Your task to perform on an android device: change text size in settings app Image 0: 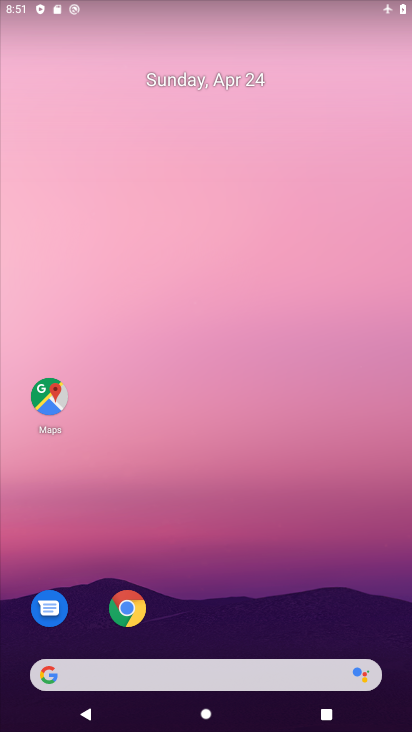
Step 0: drag from (205, 628) to (232, 127)
Your task to perform on an android device: change text size in settings app Image 1: 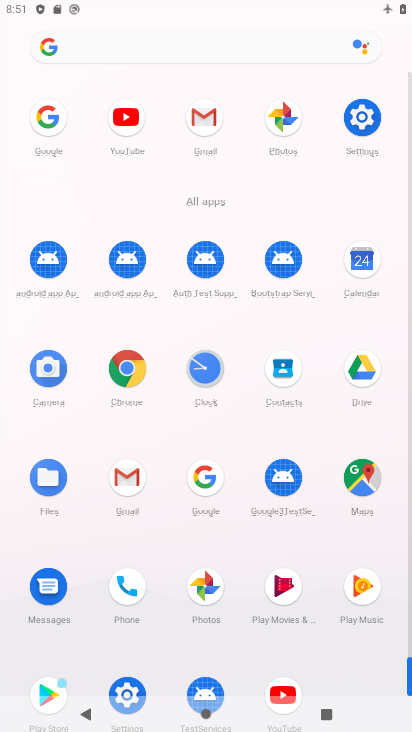
Step 1: click (351, 120)
Your task to perform on an android device: change text size in settings app Image 2: 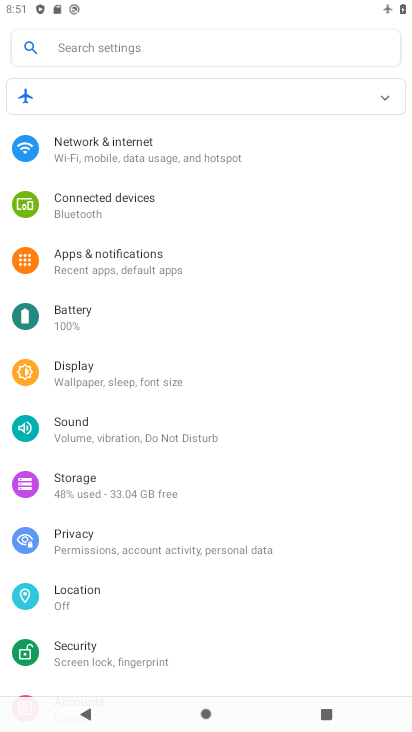
Step 2: click (113, 379)
Your task to perform on an android device: change text size in settings app Image 3: 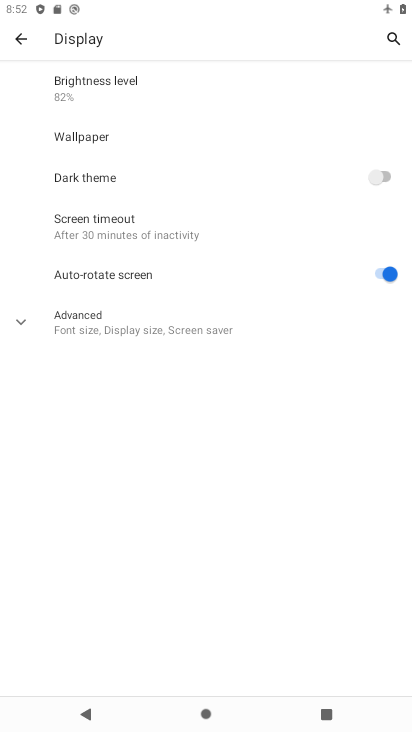
Step 3: click (103, 325)
Your task to perform on an android device: change text size in settings app Image 4: 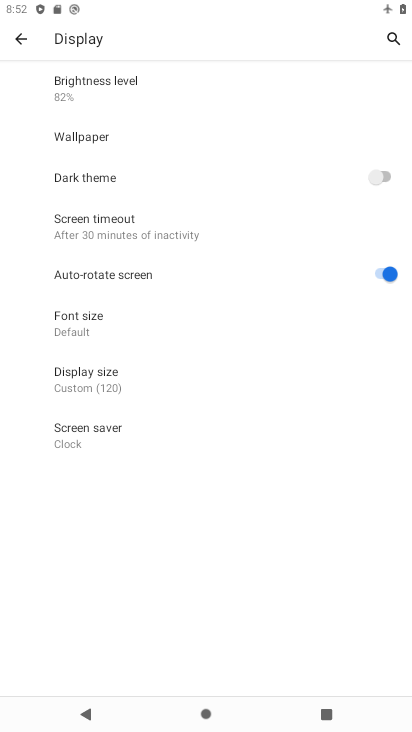
Step 4: click (99, 321)
Your task to perform on an android device: change text size in settings app Image 5: 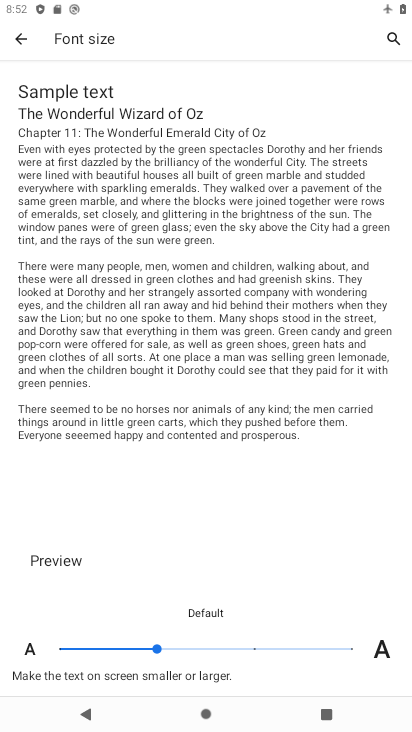
Step 5: click (69, 649)
Your task to perform on an android device: change text size in settings app Image 6: 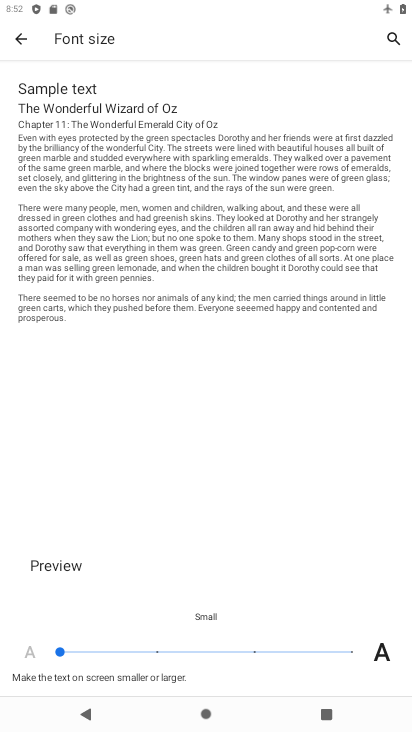
Step 6: task complete